Your task to perform on an android device: toggle airplane mode Image 0: 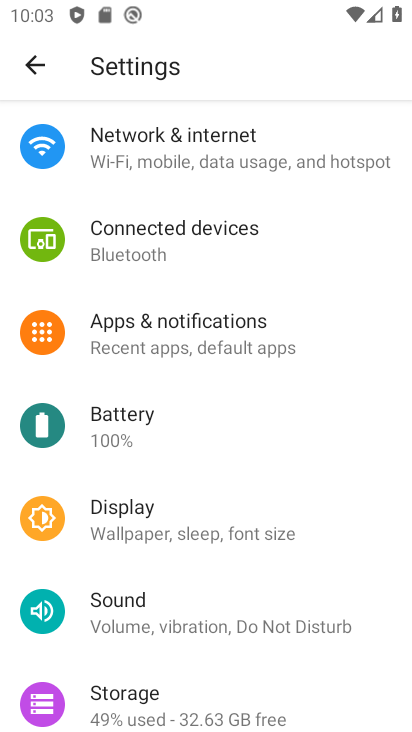
Step 0: click (276, 163)
Your task to perform on an android device: toggle airplane mode Image 1: 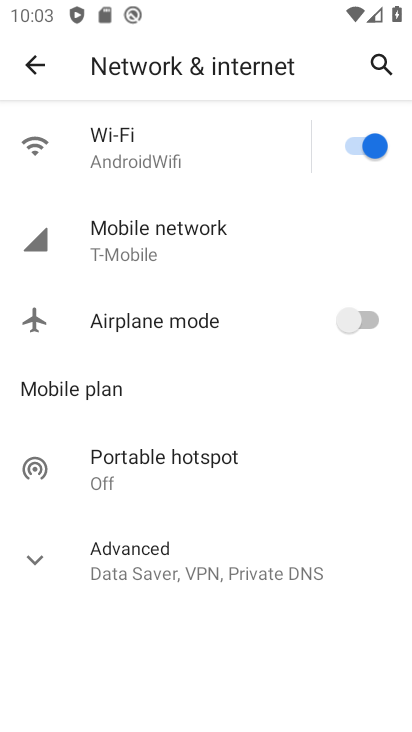
Step 1: click (362, 326)
Your task to perform on an android device: toggle airplane mode Image 2: 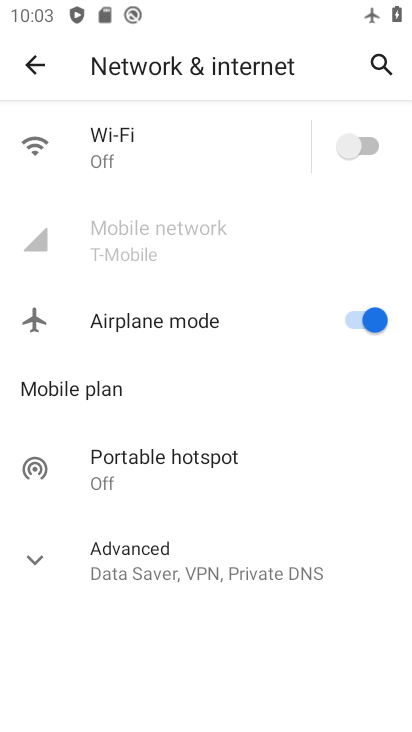
Step 2: task complete